Your task to perform on an android device: Open Google Chrome and open the bookmarks view Image 0: 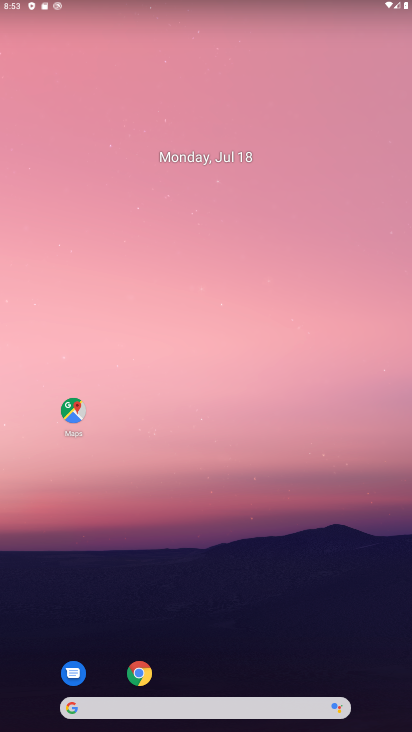
Step 0: click (115, 676)
Your task to perform on an android device: Open Google Chrome and open the bookmarks view Image 1: 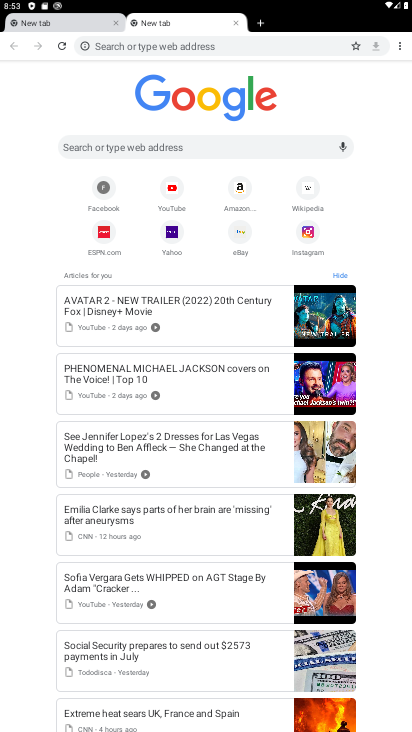
Step 1: task complete